Your task to perform on an android device: toggle wifi Image 0: 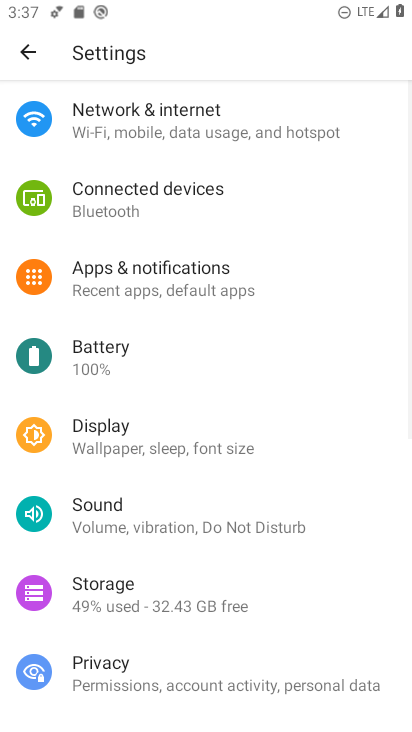
Step 0: click (295, 117)
Your task to perform on an android device: toggle wifi Image 1: 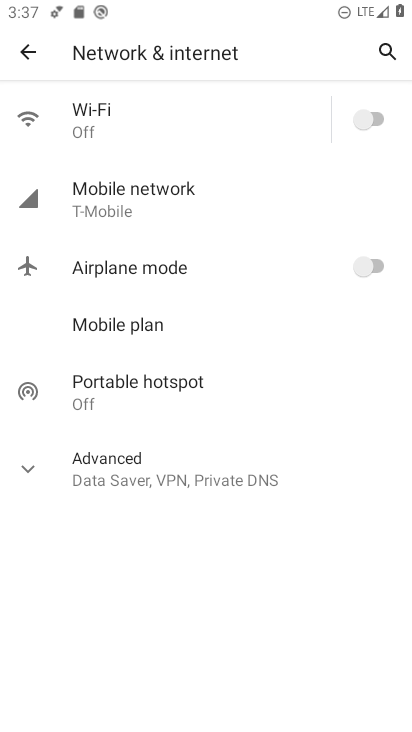
Step 1: click (385, 125)
Your task to perform on an android device: toggle wifi Image 2: 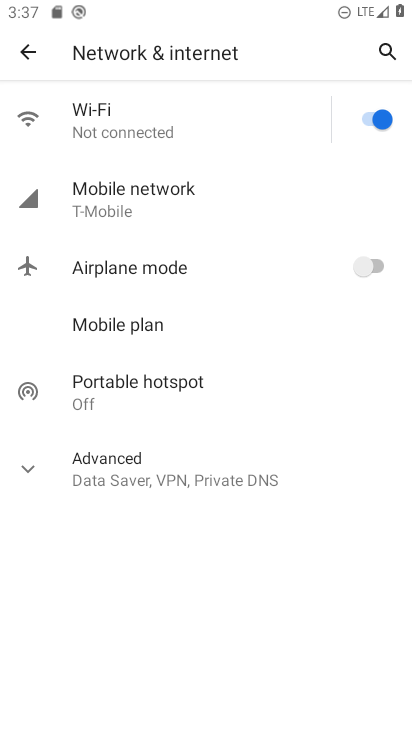
Step 2: task complete